Your task to perform on an android device: add a label to a message in the gmail app Image 0: 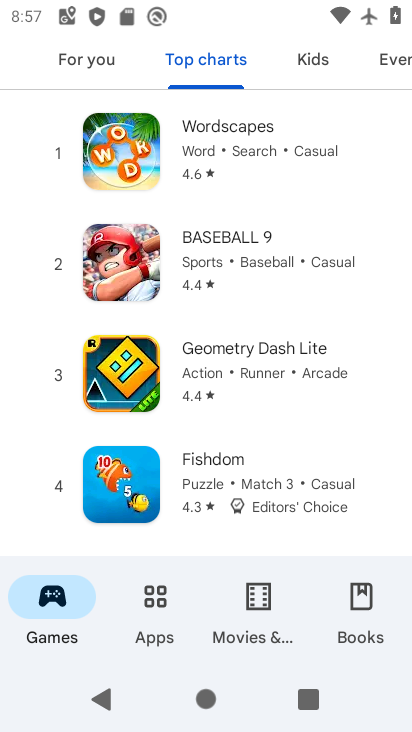
Step 0: press home button
Your task to perform on an android device: add a label to a message in the gmail app Image 1: 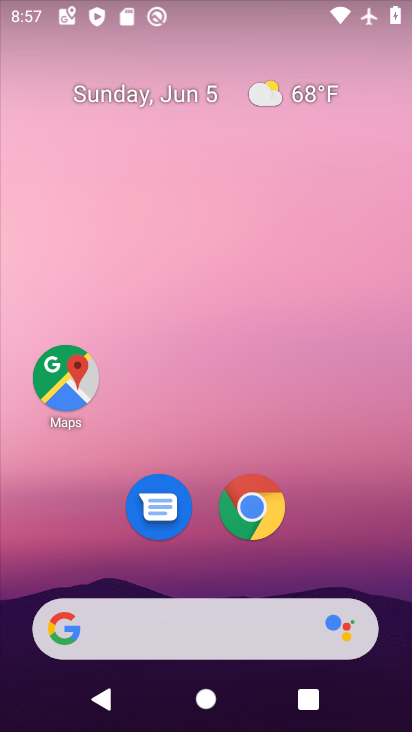
Step 1: drag from (199, 576) to (283, 0)
Your task to perform on an android device: add a label to a message in the gmail app Image 2: 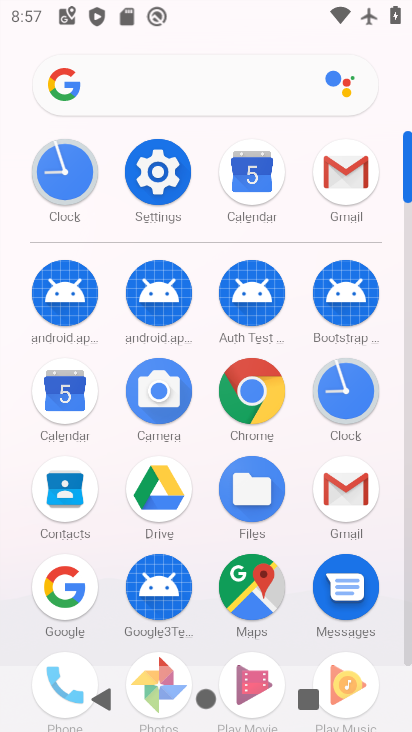
Step 2: click (351, 497)
Your task to perform on an android device: add a label to a message in the gmail app Image 3: 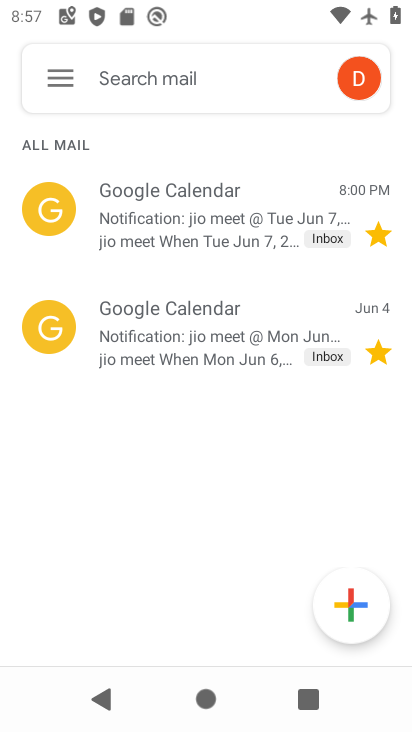
Step 3: click (63, 219)
Your task to perform on an android device: add a label to a message in the gmail app Image 4: 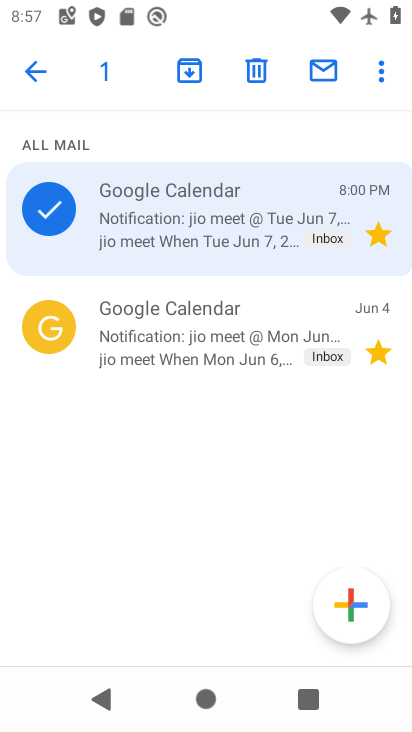
Step 4: click (388, 69)
Your task to perform on an android device: add a label to a message in the gmail app Image 5: 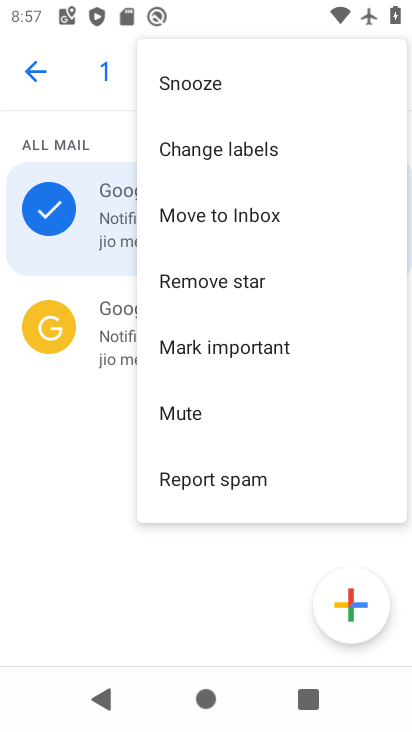
Step 5: click (222, 150)
Your task to perform on an android device: add a label to a message in the gmail app Image 6: 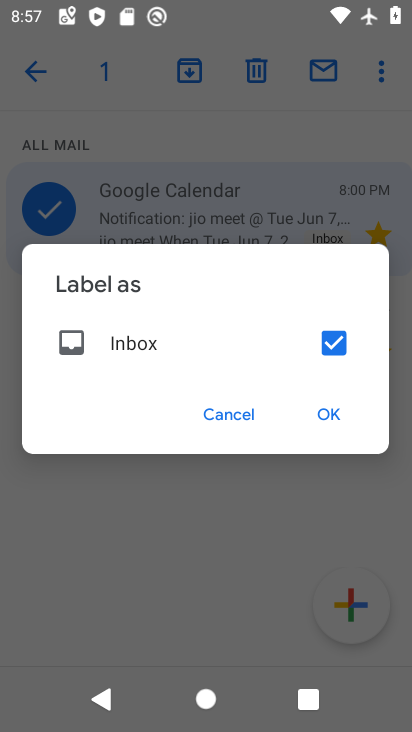
Step 6: click (324, 352)
Your task to perform on an android device: add a label to a message in the gmail app Image 7: 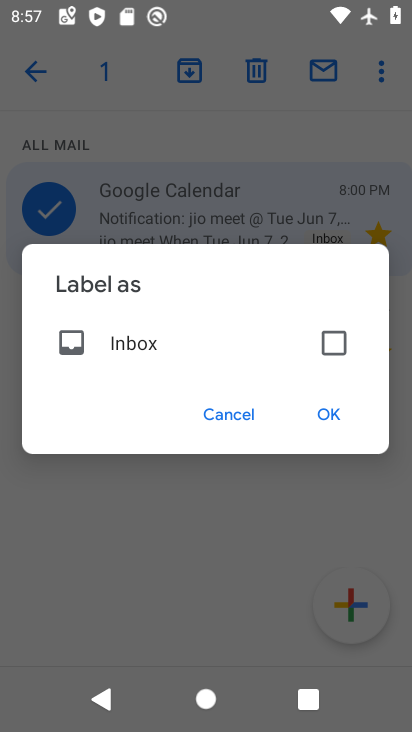
Step 7: click (327, 415)
Your task to perform on an android device: add a label to a message in the gmail app Image 8: 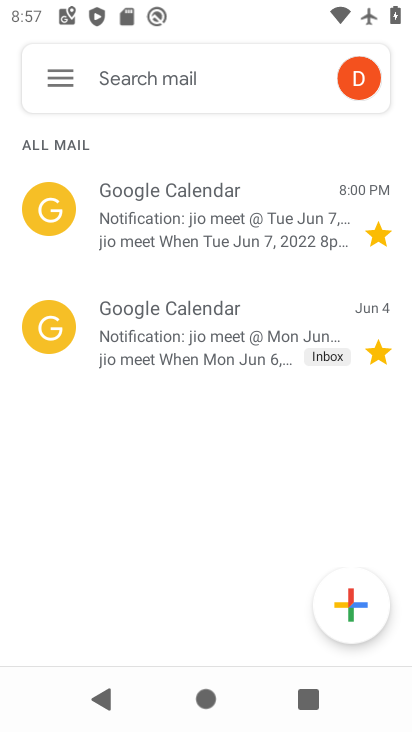
Step 8: task complete